Your task to perform on an android device: set an alarm Image 0: 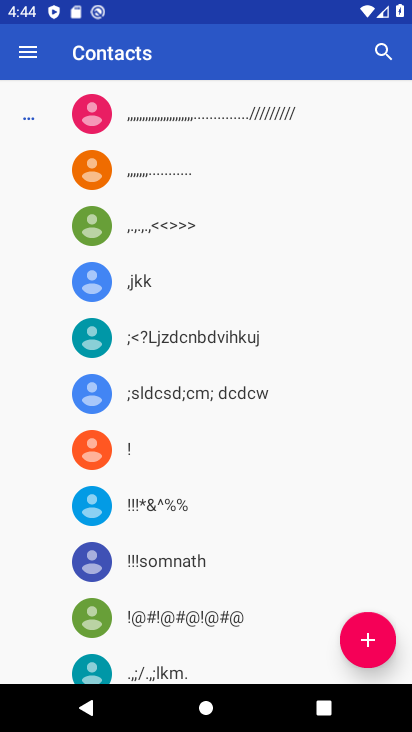
Step 0: press home button
Your task to perform on an android device: set an alarm Image 1: 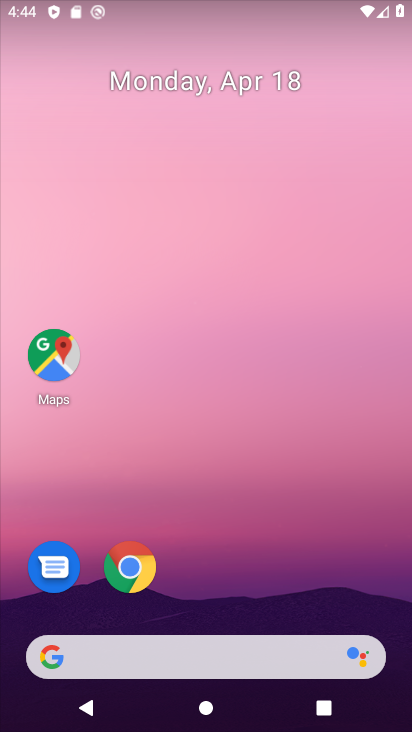
Step 1: drag from (231, 590) to (307, 94)
Your task to perform on an android device: set an alarm Image 2: 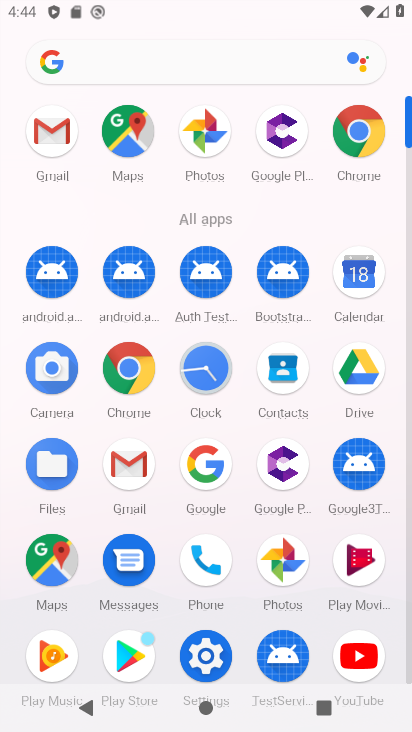
Step 2: click (209, 365)
Your task to perform on an android device: set an alarm Image 3: 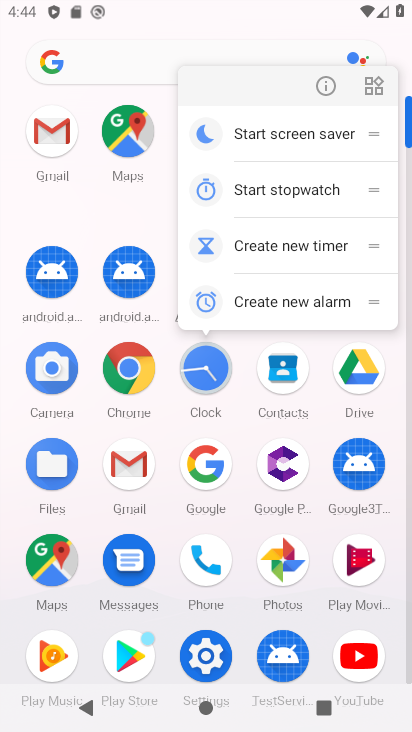
Step 3: click (209, 365)
Your task to perform on an android device: set an alarm Image 4: 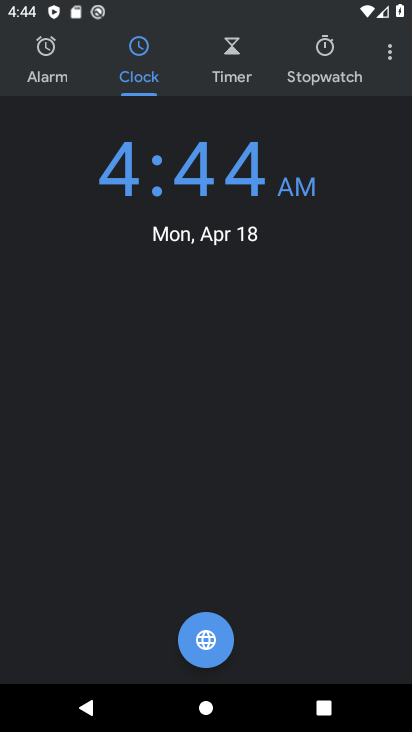
Step 4: click (40, 52)
Your task to perform on an android device: set an alarm Image 5: 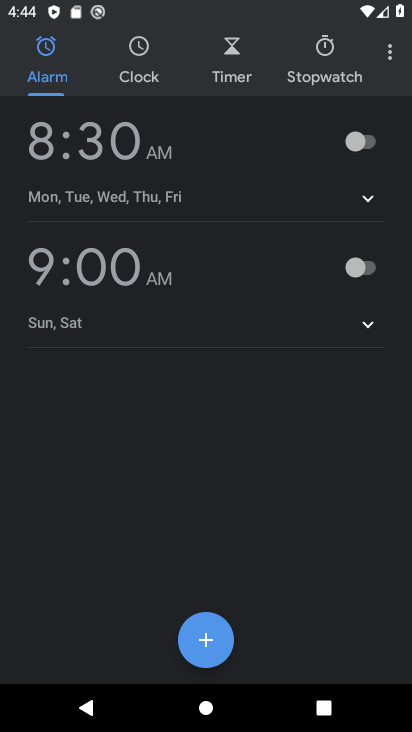
Step 5: click (208, 639)
Your task to perform on an android device: set an alarm Image 6: 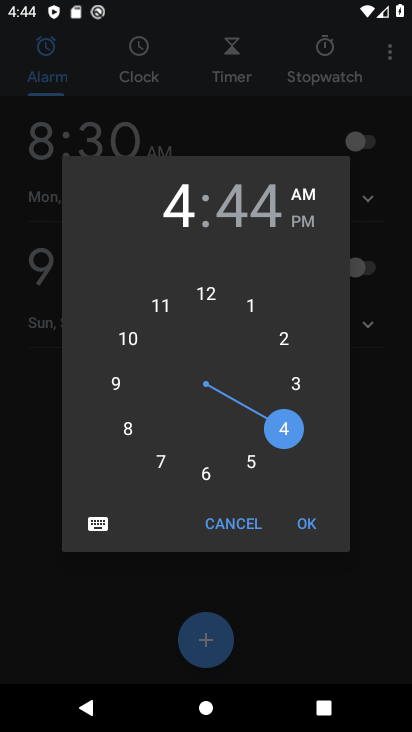
Step 6: click (180, 222)
Your task to perform on an android device: set an alarm Image 7: 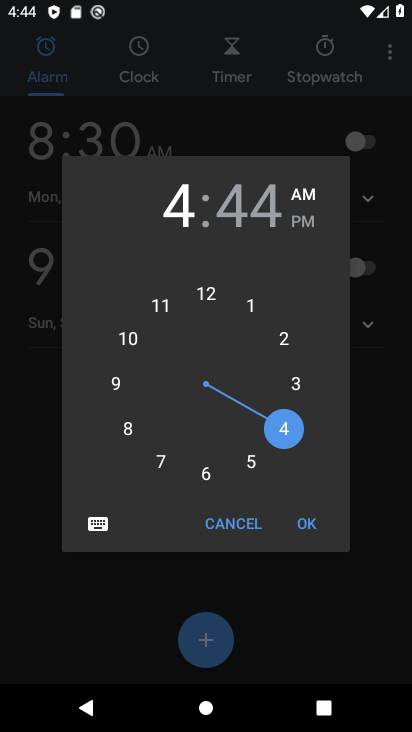
Step 7: click (253, 309)
Your task to perform on an android device: set an alarm Image 8: 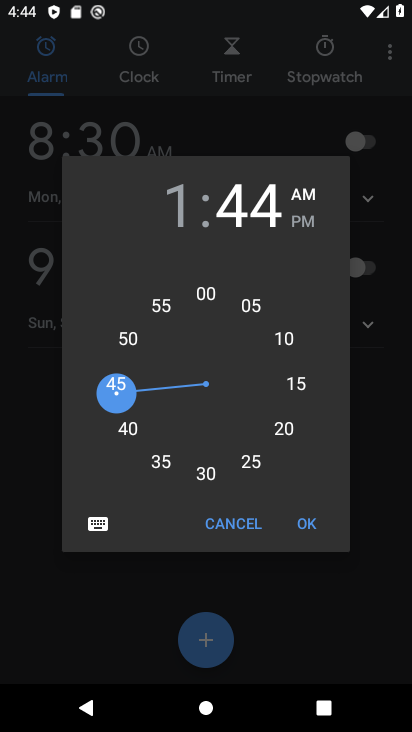
Step 8: click (296, 355)
Your task to perform on an android device: set an alarm Image 9: 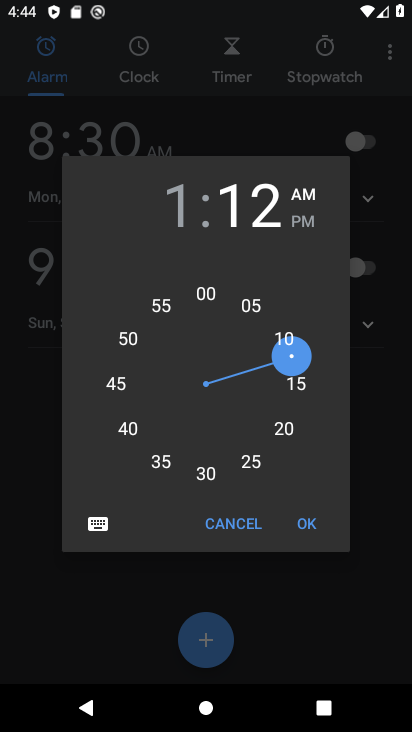
Step 9: click (303, 221)
Your task to perform on an android device: set an alarm Image 10: 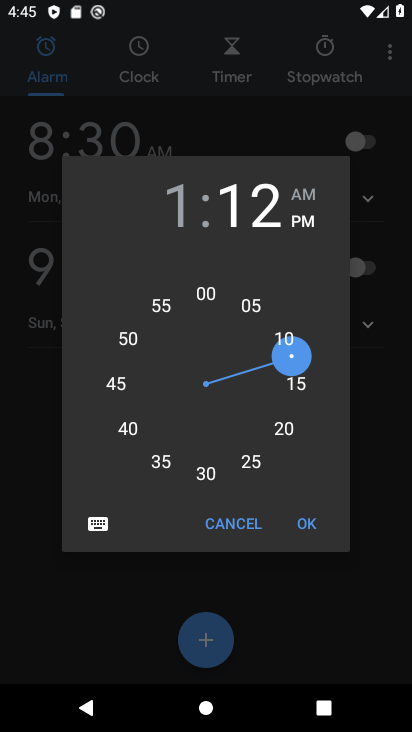
Step 10: click (317, 520)
Your task to perform on an android device: set an alarm Image 11: 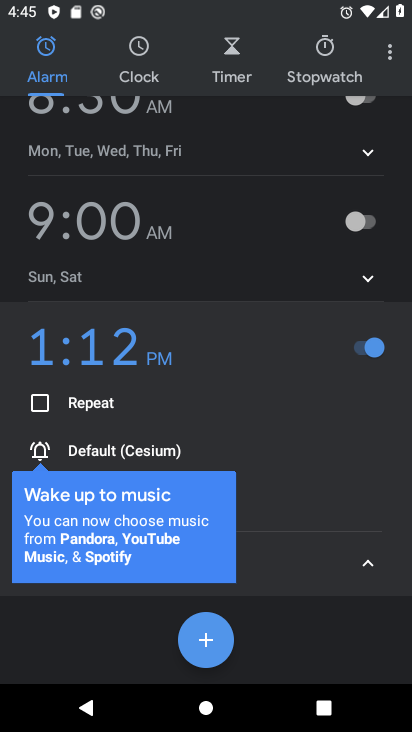
Step 11: click (372, 571)
Your task to perform on an android device: set an alarm Image 12: 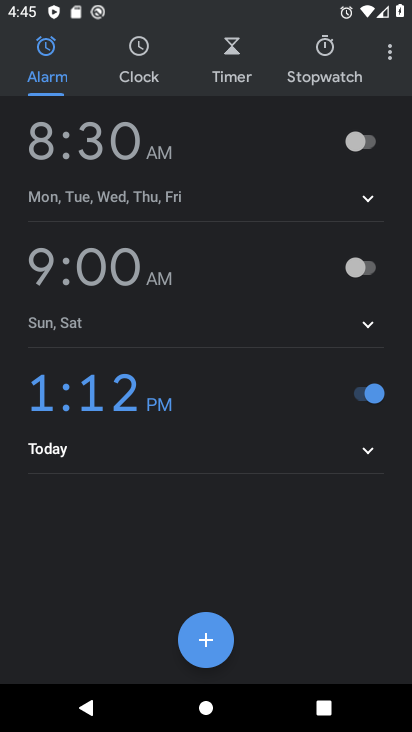
Step 12: task complete